Your task to perform on an android device: make emails show in primary in the gmail app Image 0: 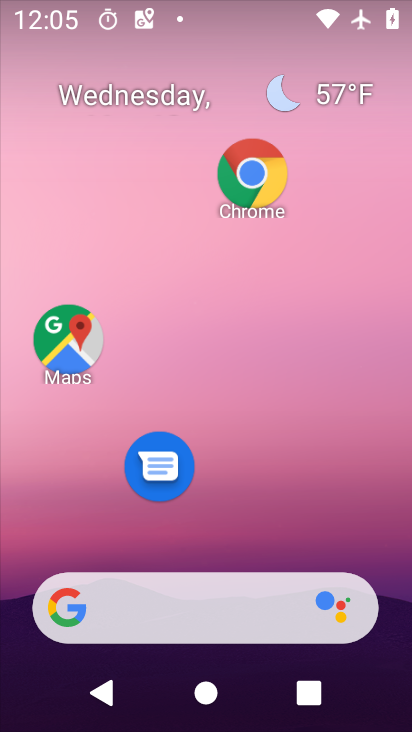
Step 0: drag from (203, 534) to (229, 112)
Your task to perform on an android device: make emails show in primary in the gmail app Image 1: 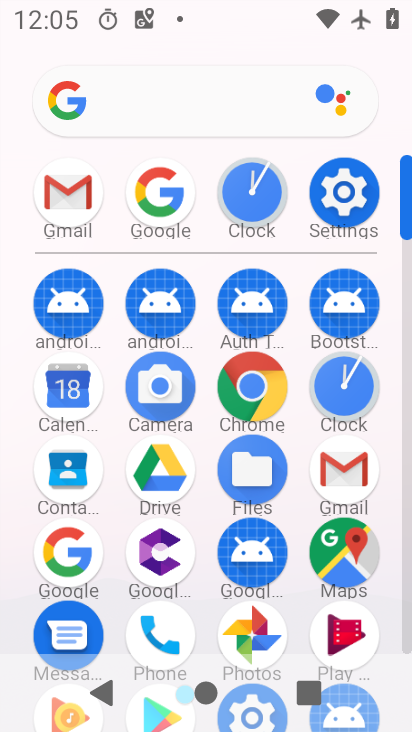
Step 1: click (61, 197)
Your task to perform on an android device: make emails show in primary in the gmail app Image 2: 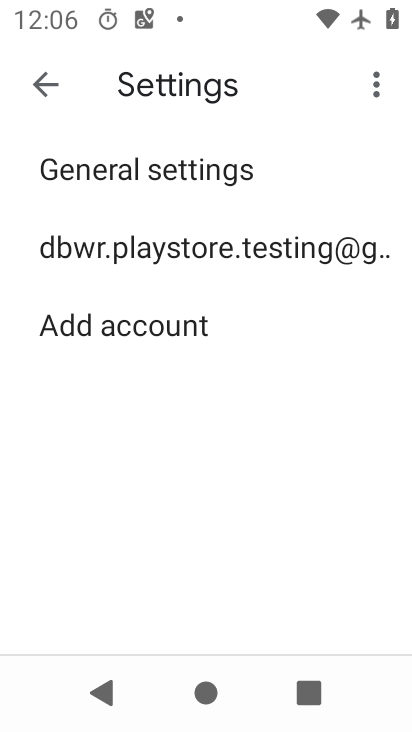
Step 2: click (139, 262)
Your task to perform on an android device: make emails show in primary in the gmail app Image 3: 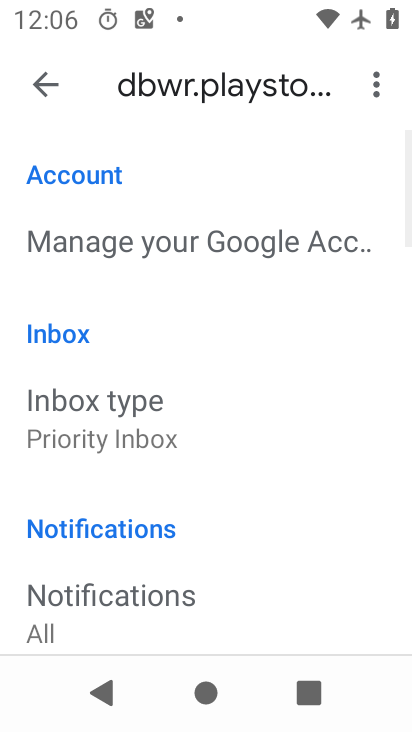
Step 3: click (115, 436)
Your task to perform on an android device: make emails show in primary in the gmail app Image 4: 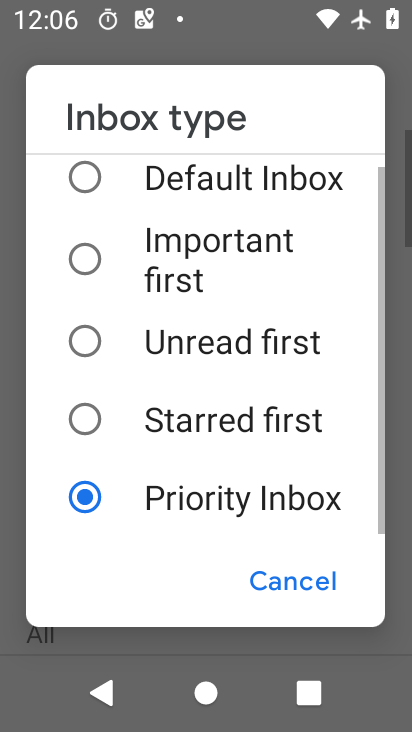
Step 4: click (213, 184)
Your task to perform on an android device: make emails show in primary in the gmail app Image 5: 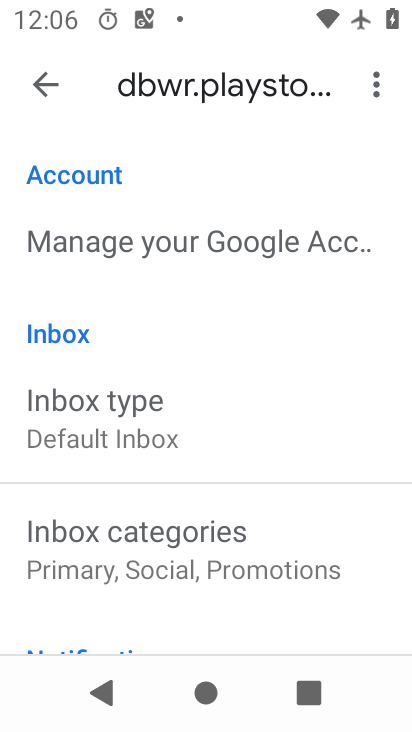
Step 5: click (218, 550)
Your task to perform on an android device: make emails show in primary in the gmail app Image 6: 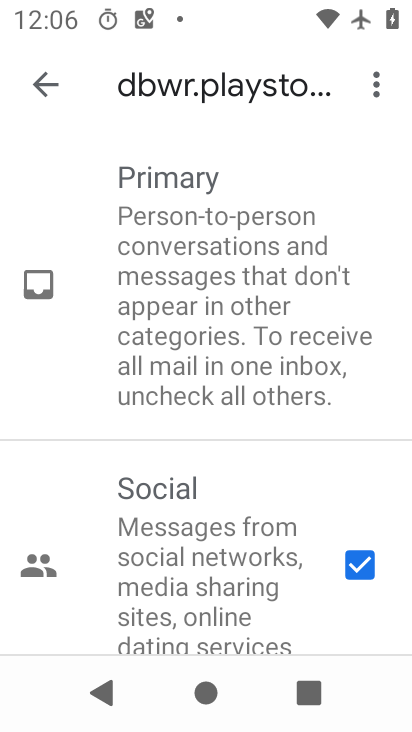
Step 6: drag from (251, 636) to (251, 216)
Your task to perform on an android device: make emails show in primary in the gmail app Image 7: 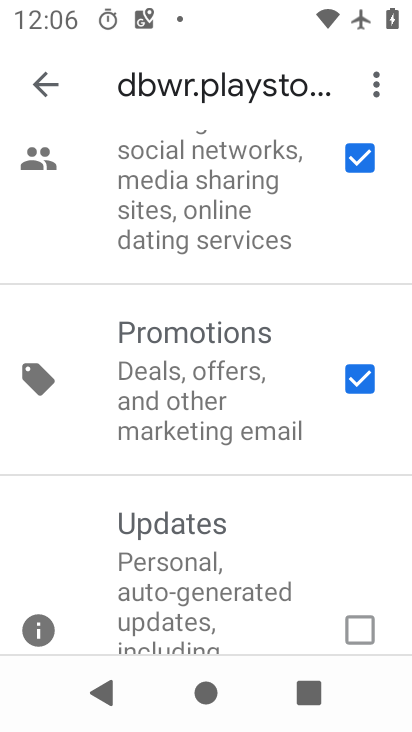
Step 7: click (350, 385)
Your task to perform on an android device: make emails show in primary in the gmail app Image 8: 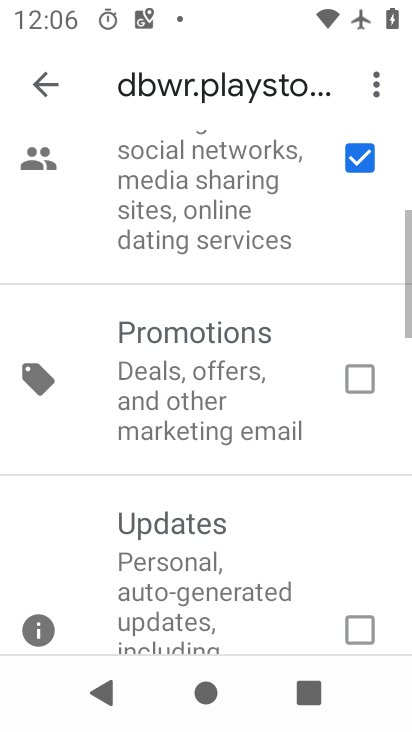
Step 8: click (355, 161)
Your task to perform on an android device: make emails show in primary in the gmail app Image 9: 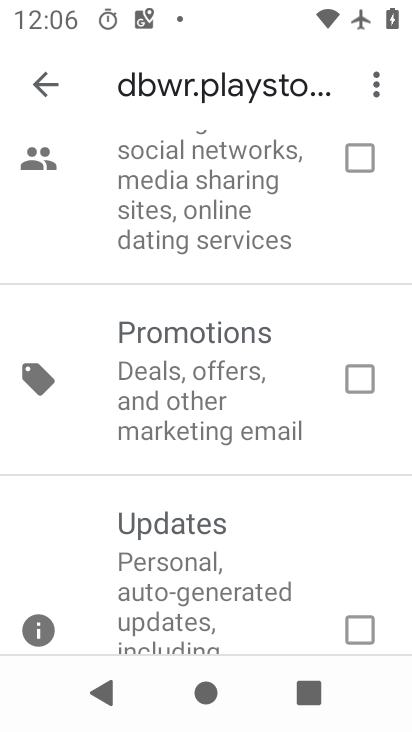
Step 9: click (43, 80)
Your task to perform on an android device: make emails show in primary in the gmail app Image 10: 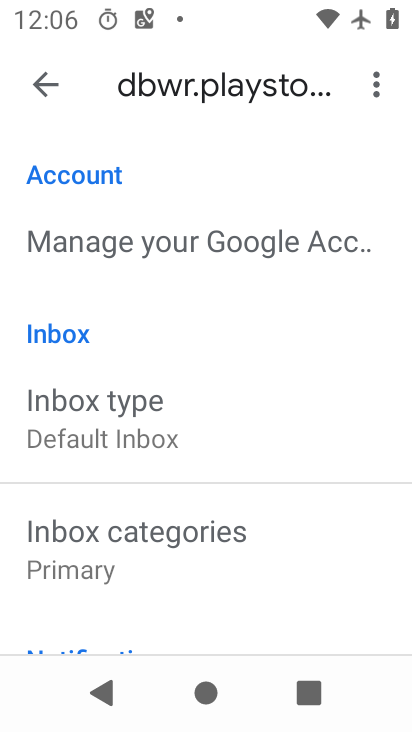
Step 10: task complete